Your task to perform on an android device: check battery use Image 0: 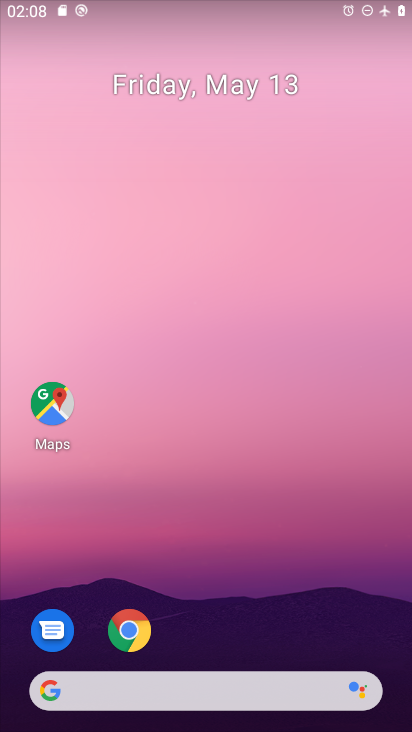
Step 0: press home button
Your task to perform on an android device: check battery use Image 1: 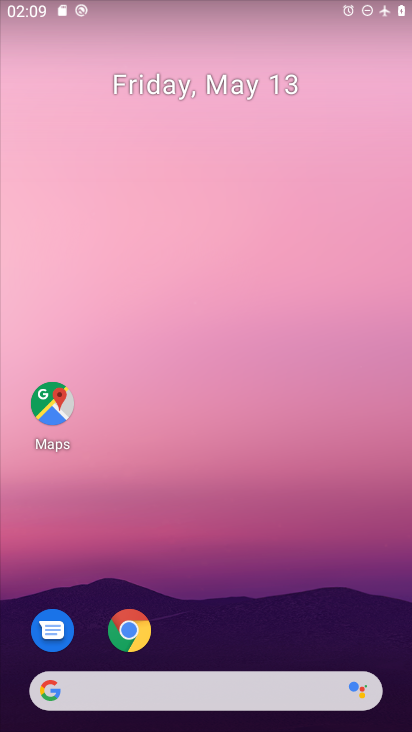
Step 1: drag from (279, 726) to (198, 183)
Your task to perform on an android device: check battery use Image 2: 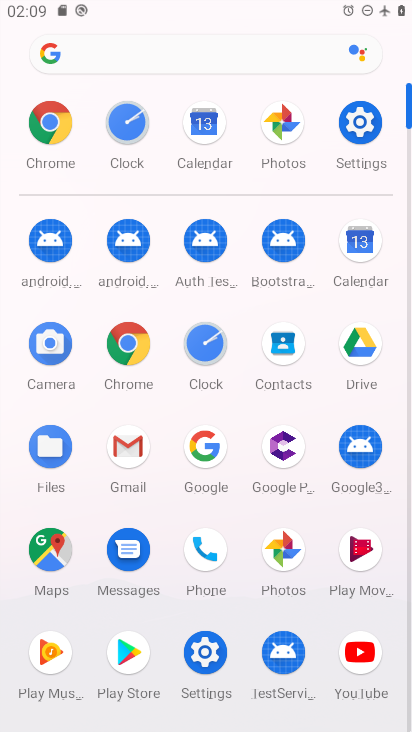
Step 2: click (355, 134)
Your task to perform on an android device: check battery use Image 3: 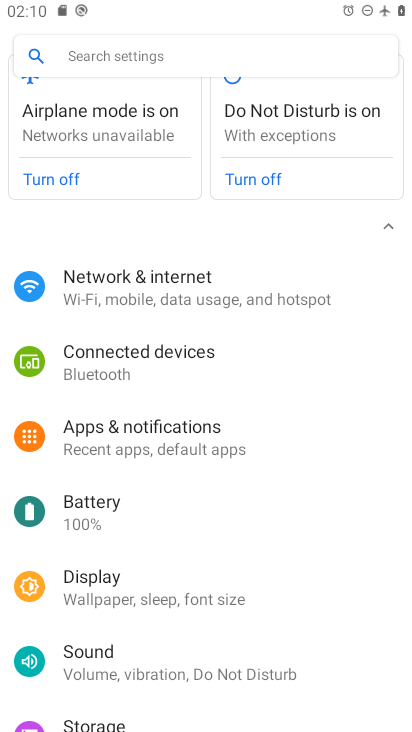
Step 3: click (100, 511)
Your task to perform on an android device: check battery use Image 4: 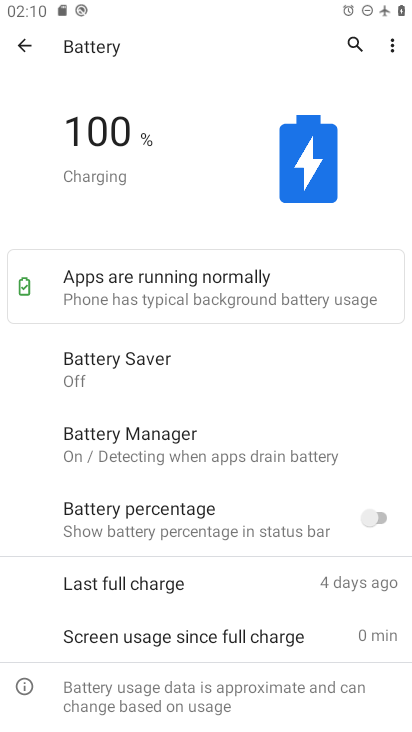
Step 4: task complete